Your task to perform on an android device: Open Yahoo.com Image 0: 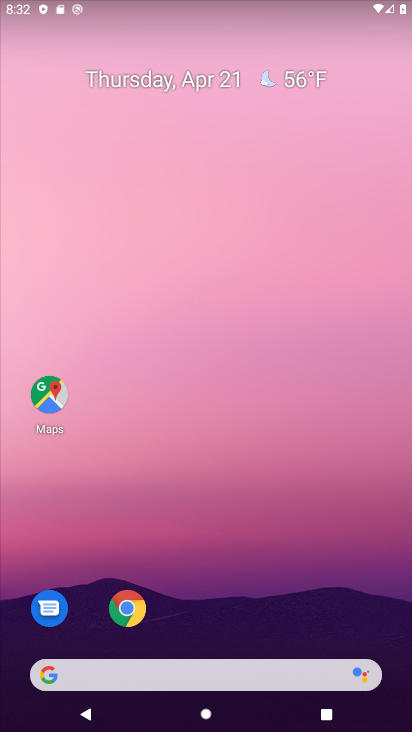
Step 0: click (142, 674)
Your task to perform on an android device: Open Yahoo.com Image 1: 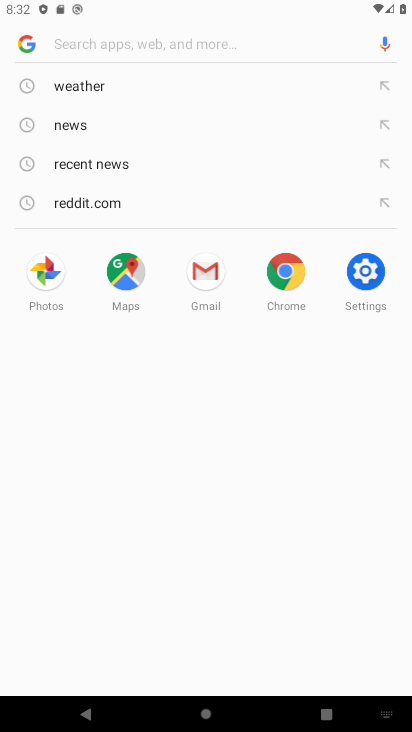
Step 1: type "yahoo.com"
Your task to perform on an android device: Open Yahoo.com Image 2: 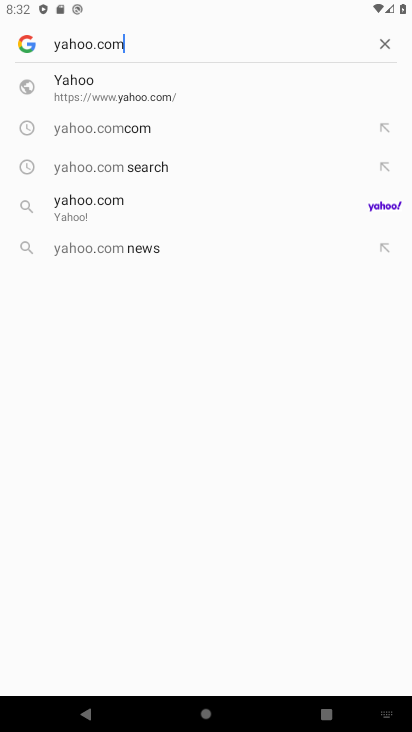
Step 2: click (115, 207)
Your task to perform on an android device: Open Yahoo.com Image 3: 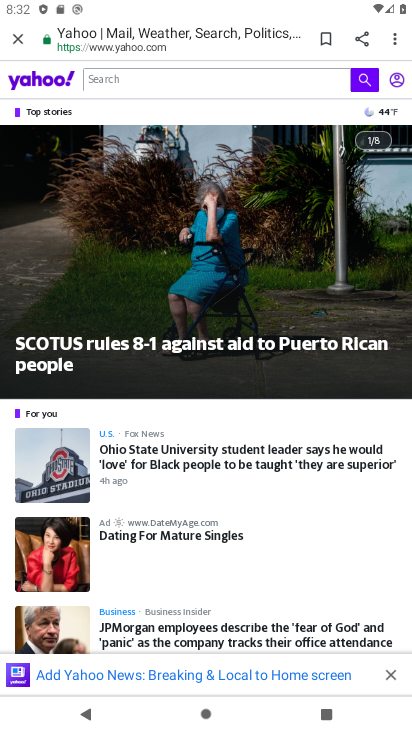
Step 3: task complete